Your task to perform on an android device: change text size in settings app Image 0: 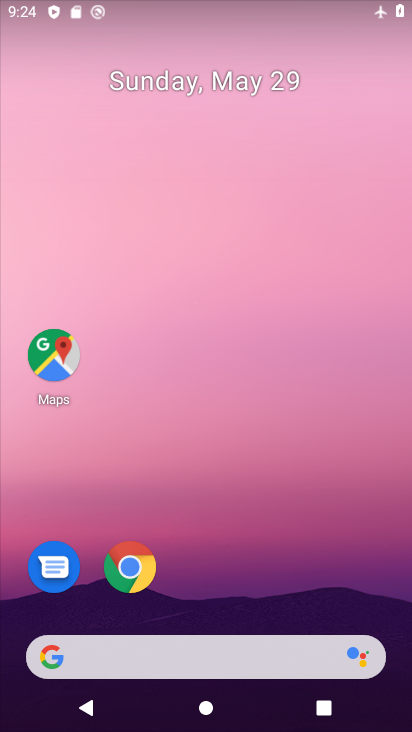
Step 0: drag from (376, 611) to (348, 52)
Your task to perform on an android device: change text size in settings app Image 1: 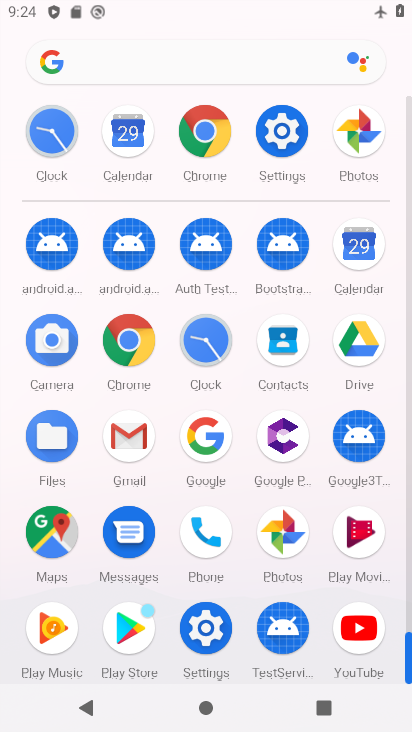
Step 1: click (207, 627)
Your task to perform on an android device: change text size in settings app Image 2: 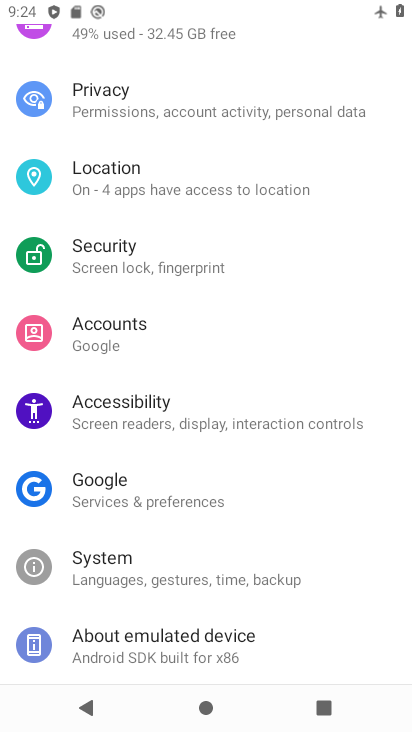
Step 2: drag from (293, 132) to (328, 462)
Your task to perform on an android device: change text size in settings app Image 3: 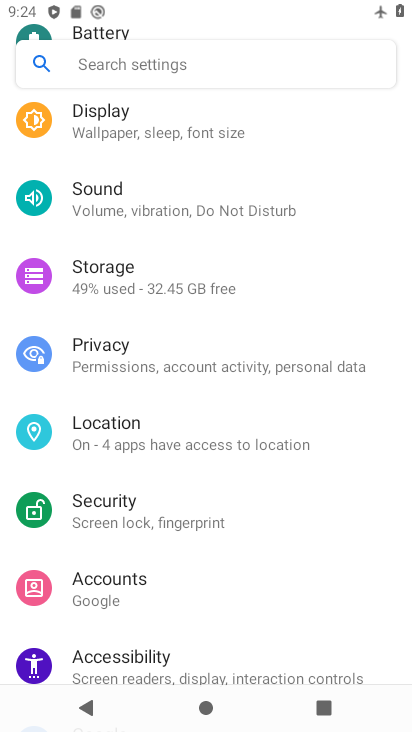
Step 3: click (107, 122)
Your task to perform on an android device: change text size in settings app Image 4: 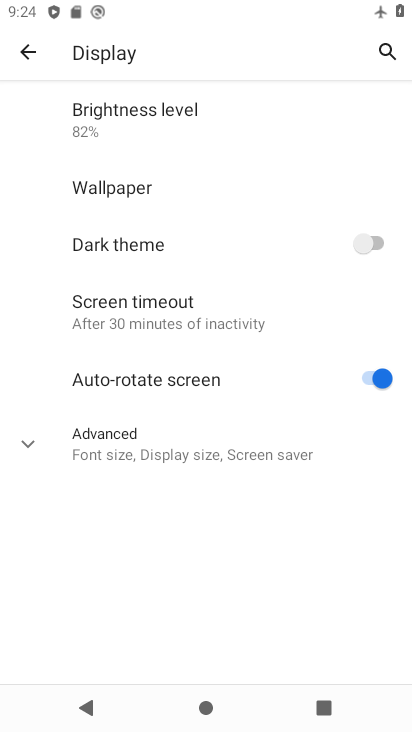
Step 4: click (33, 438)
Your task to perform on an android device: change text size in settings app Image 5: 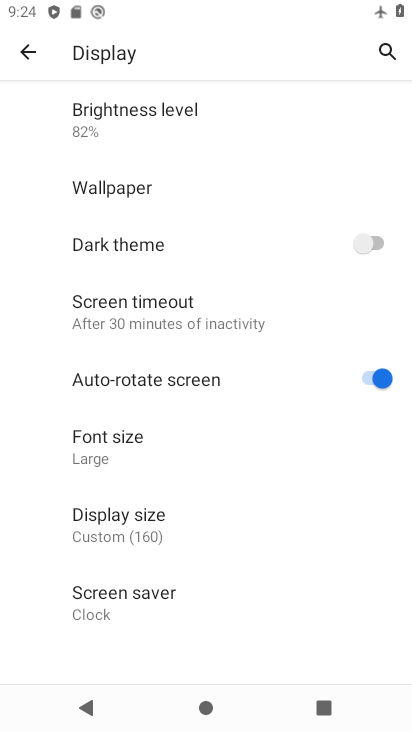
Step 5: click (115, 444)
Your task to perform on an android device: change text size in settings app Image 6: 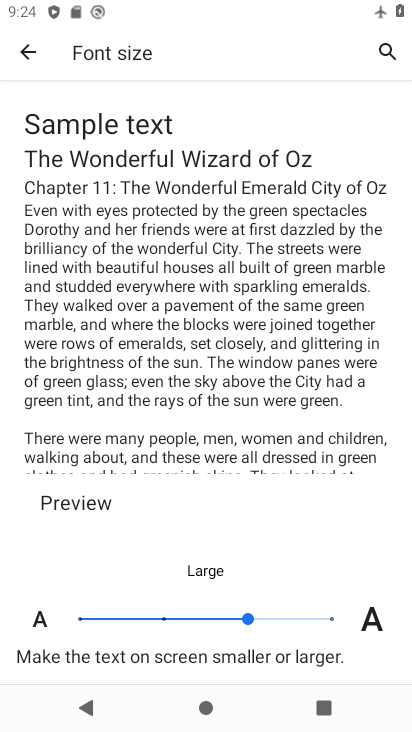
Step 6: click (165, 619)
Your task to perform on an android device: change text size in settings app Image 7: 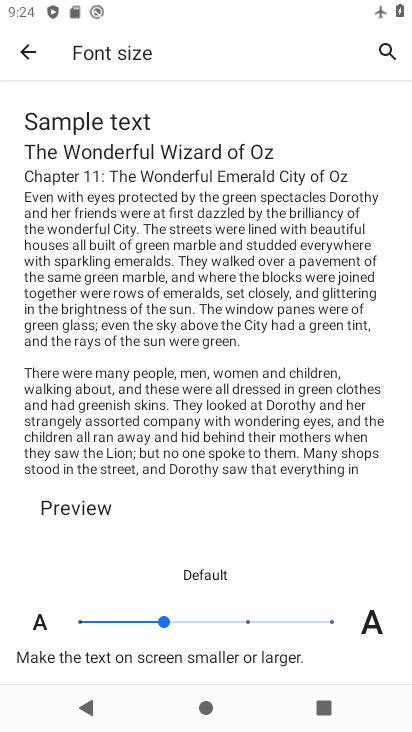
Step 7: task complete